Your task to perform on an android device: Open battery settings Image 0: 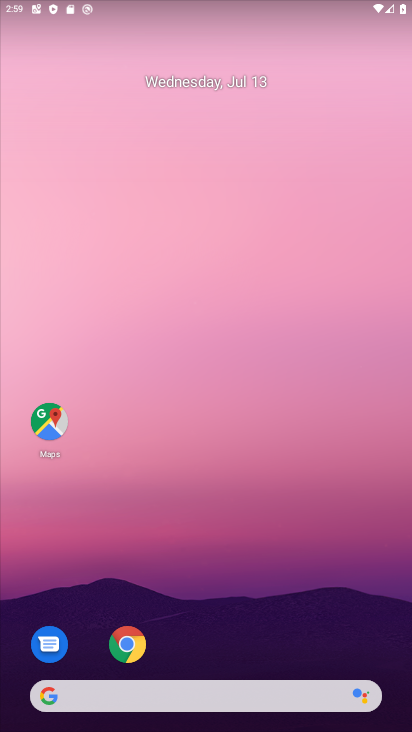
Step 0: drag from (233, 619) to (136, 58)
Your task to perform on an android device: Open battery settings Image 1: 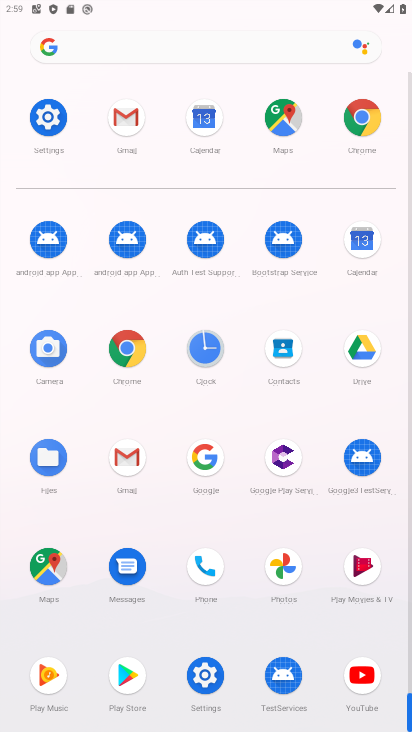
Step 1: click (53, 117)
Your task to perform on an android device: Open battery settings Image 2: 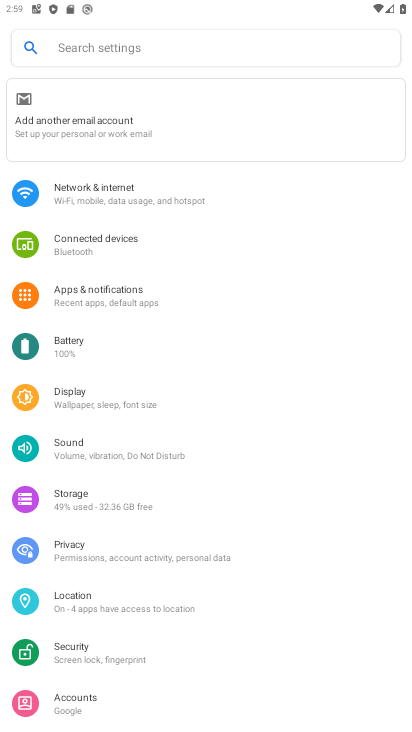
Step 2: click (89, 347)
Your task to perform on an android device: Open battery settings Image 3: 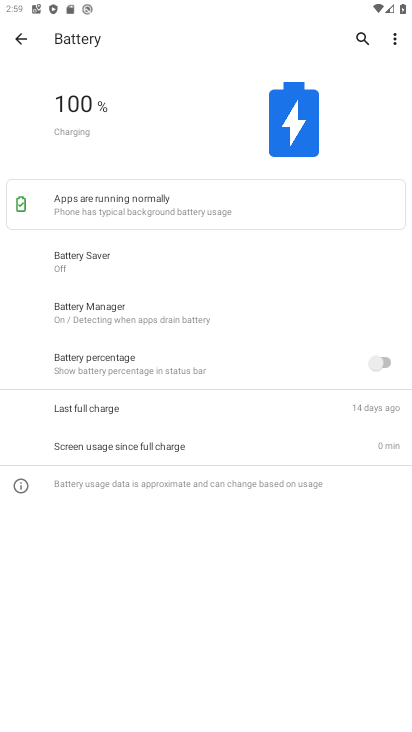
Step 3: task complete